Your task to perform on an android device: refresh tabs in the chrome app Image 0: 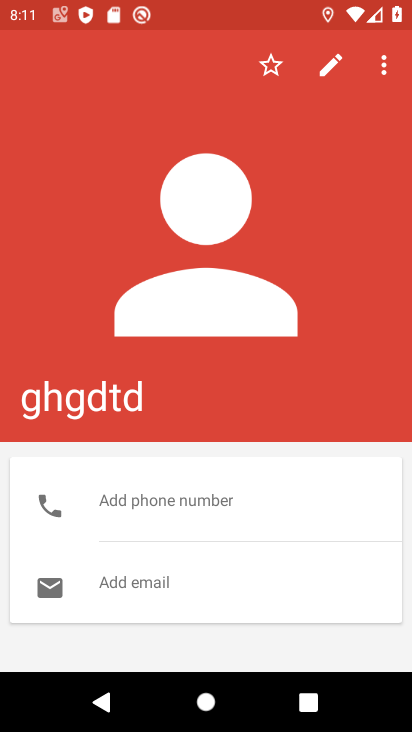
Step 0: press home button
Your task to perform on an android device: refresh tabs in the chrome app Image 1: 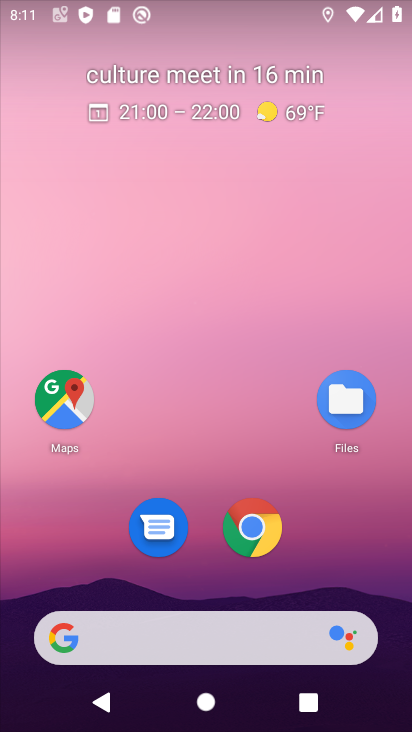
Step 1: click (256, 522)
Your task to perform on an android device: refresh tabs in the chrome app Image 2: 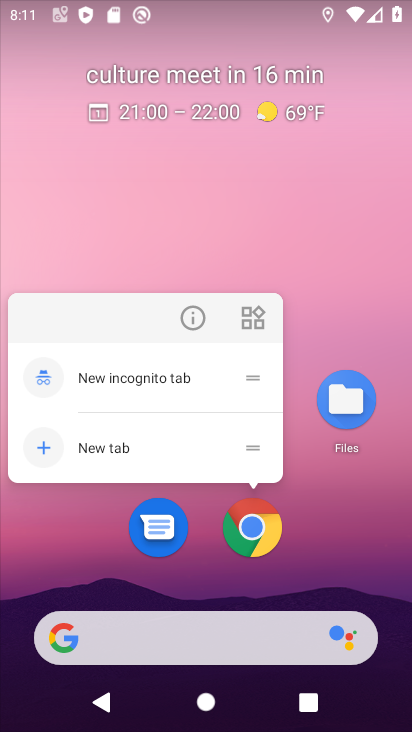
Step 2: click (256, 522)
Your task to perform on an android device: refresh tabs in the chrome app Image 3: 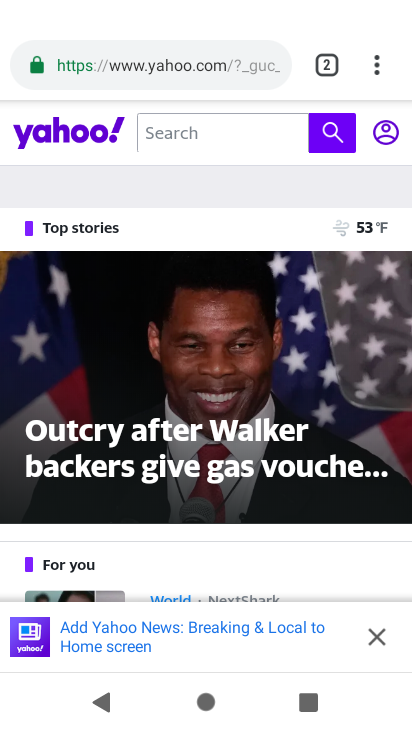
Step 3: click (374, 78)
Your task to perform on an android device: refresh tabs in the chrome app Image 4: 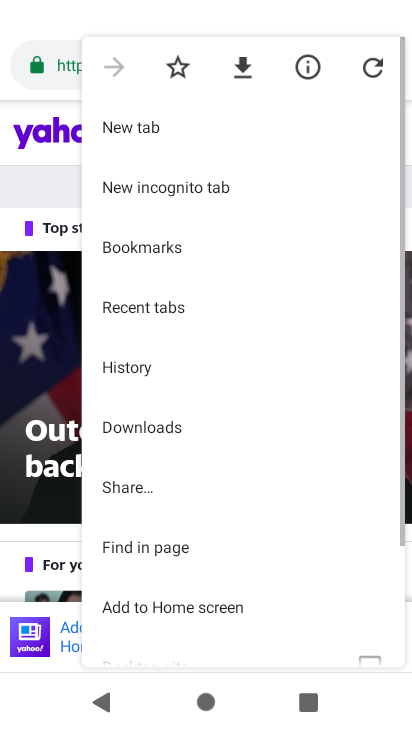
Step 4: click (374, 75)
Your task to perform on an android device: refresh tabs in the chrome app Image 5: 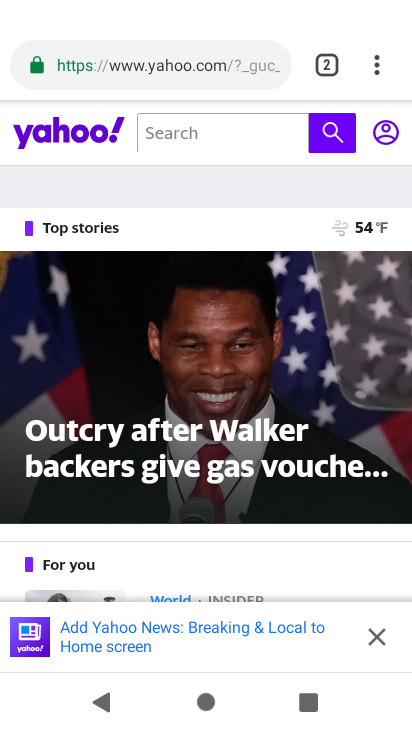
Step 5: task complete